Your task to perform on an android device: Open CNN.com Image 0: 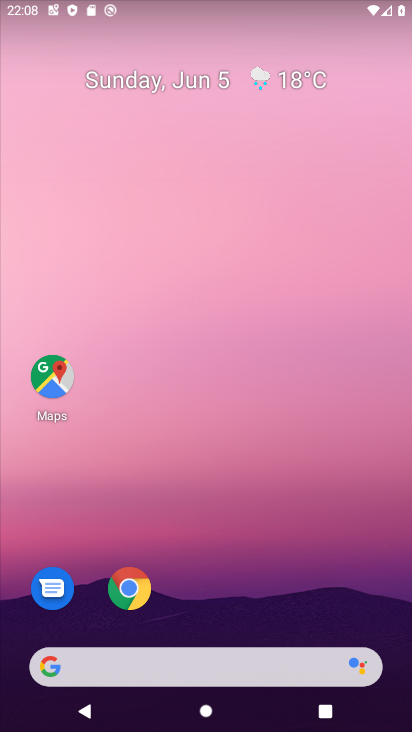
Step 0: drag from (355, 617) to (362, 130)
Your task to perform on an android device: Open CNN.com Image 1: 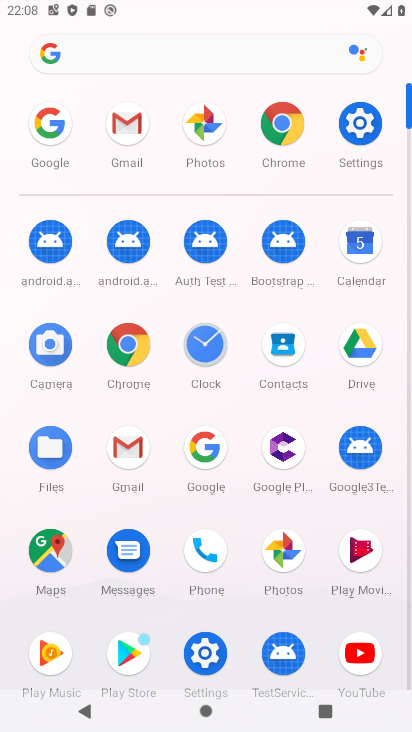
Step 1: click (133, 339)
Your task to perform on an android device: Open CNN.com Image 2: 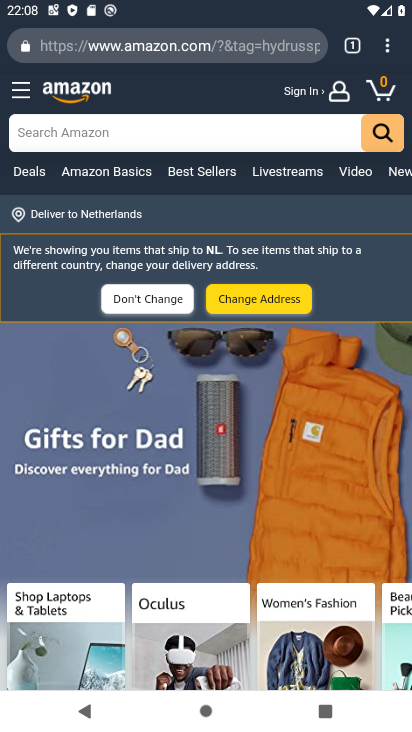
Step 2: click (239, 55)
Your task to perform on an android device: Open CNN.com Image 3: 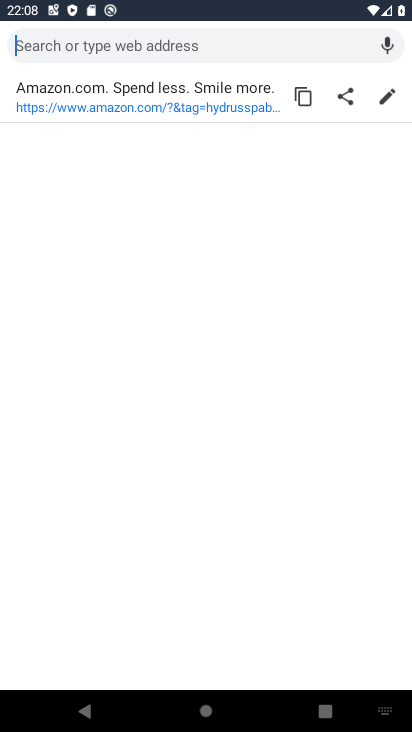
Step 3: type "cnn.com"
Your task to perform on an android device: Open CNN.com Image 4: 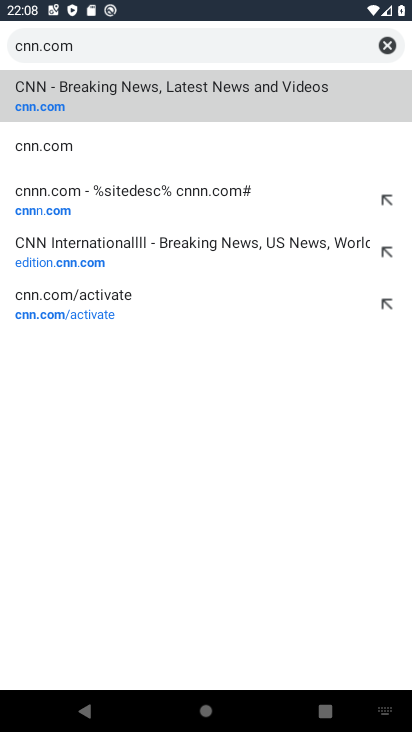
Step 4: click (55, 142)
Your task to perform on an android device: Open CNN.com Image 5: 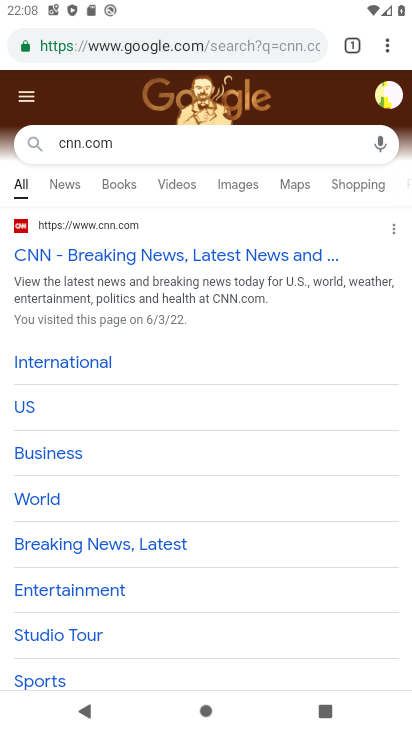
Step 5: click (262, 250)
Your task to perform on an android device: Open CNN.com Image 6: 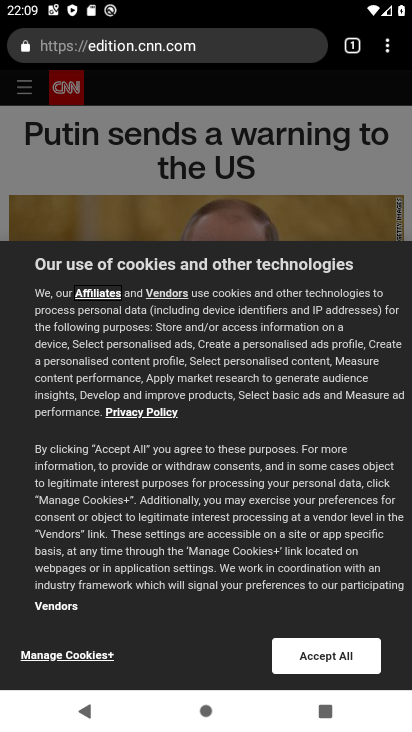
Step 6: task complete